Your task to perform on an android device: change the upload size in google photos Image 0: 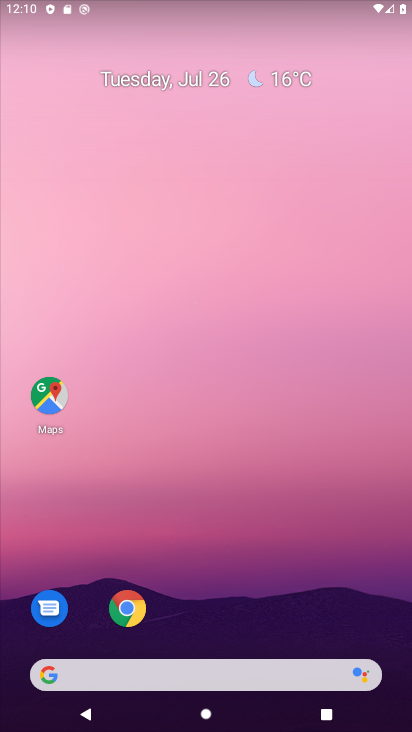
Step 0: drag from (288, 632) to (296, 67)
Your task to perform on an android device: change the upload size in google photos Image 1: 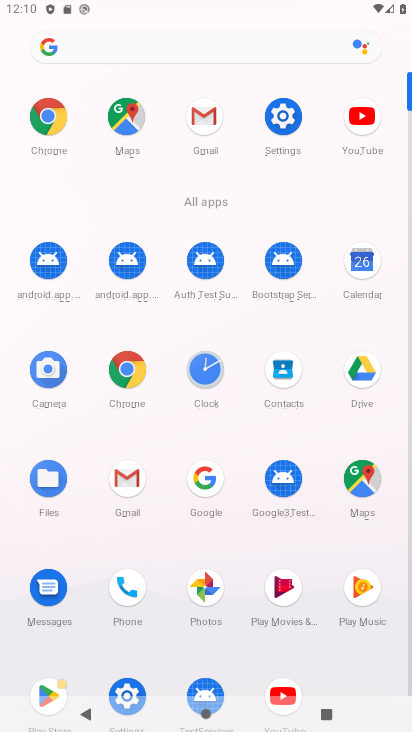
Step 1: click (209, 583)
Your task to perform on an android device: change the upload size in google photos Image 2: 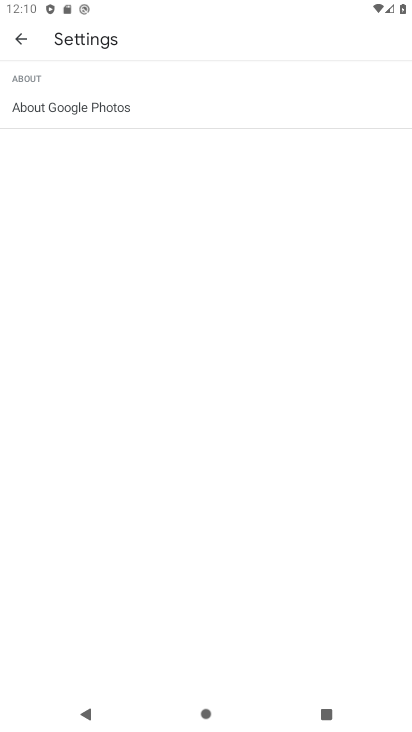
Step 2: task complete